Your task to perform on an android device: turn vacation reply on in the gmail app Image 0: 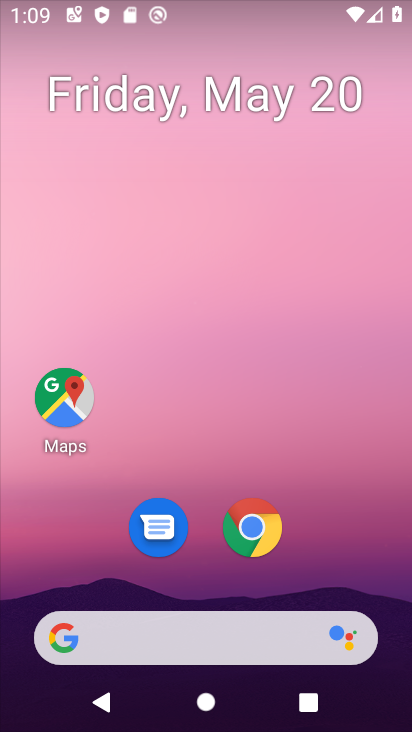
Step 0: press home button
Your task to perform on an android device: turn vacation reply on in the gmail app Image 1: 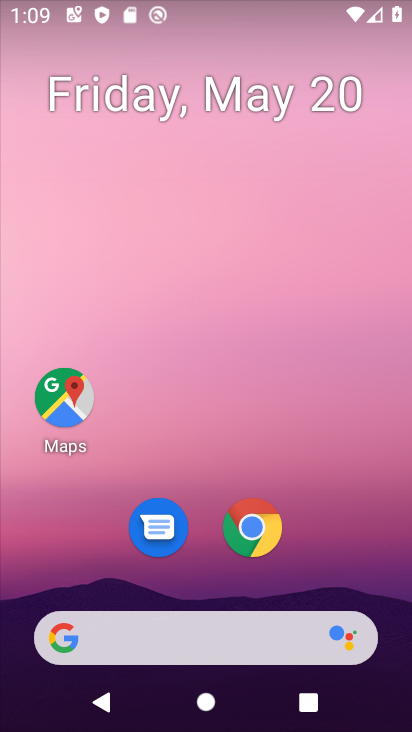
Step 1: drag from (154, 644) to (293, 203)
Your task to perform on an android device: turn vacation reply on in the gmail app Image 2: 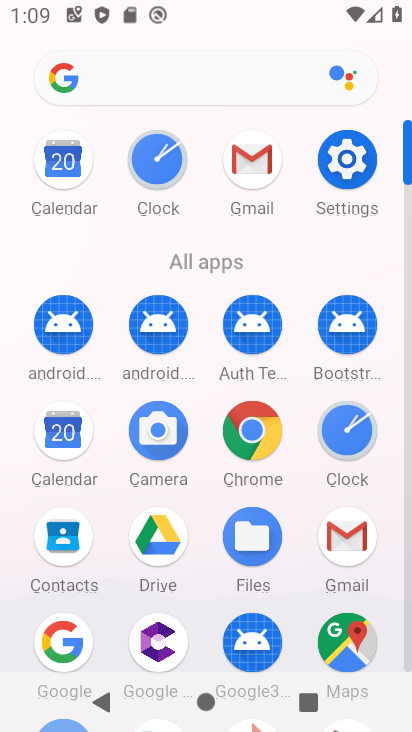
Step 2: click (250, 173)
Your task to perform on an android device: turn vacation reply on in the gmail app Image 3: 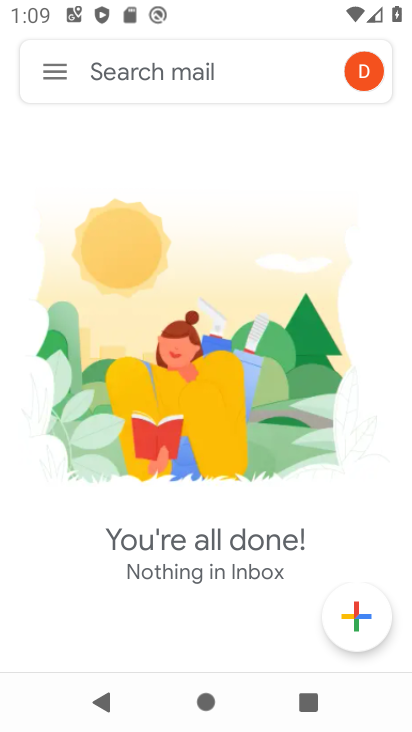
Step 3: click (59, 74)
Your task to perform on an android device: turn vacation reply on in the gmail app Image 4: 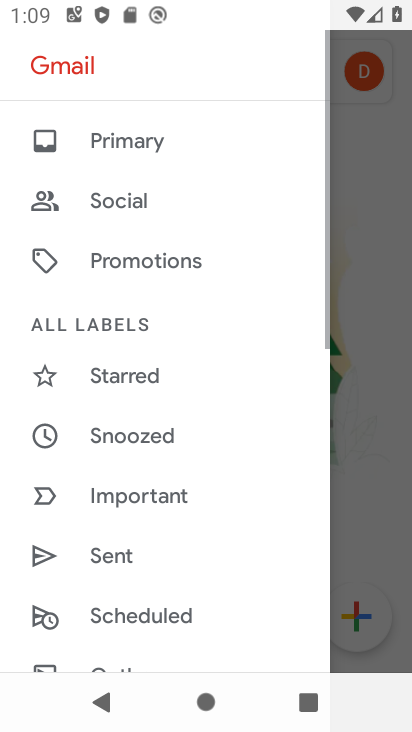
Step 4: drag from (189, 586) to (235, 135)
Your task to perform on an android device: turn vacation reply on in the gmail app Image 5: 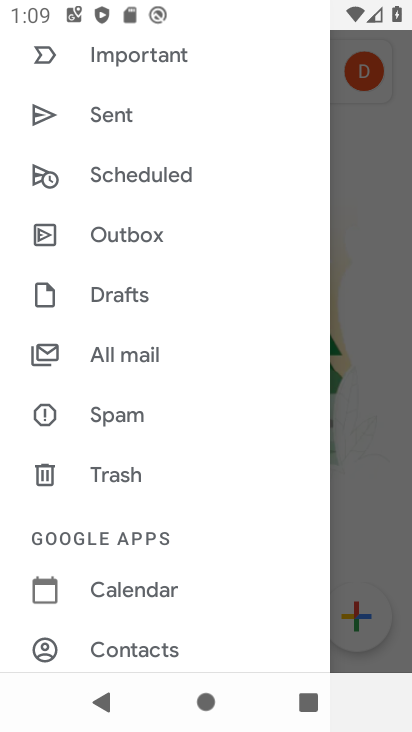
Step 5: drag from (205, 630) to (202, 170)
Your task to perform on an android device: turn vacation reply on in the gmail app Image 6: 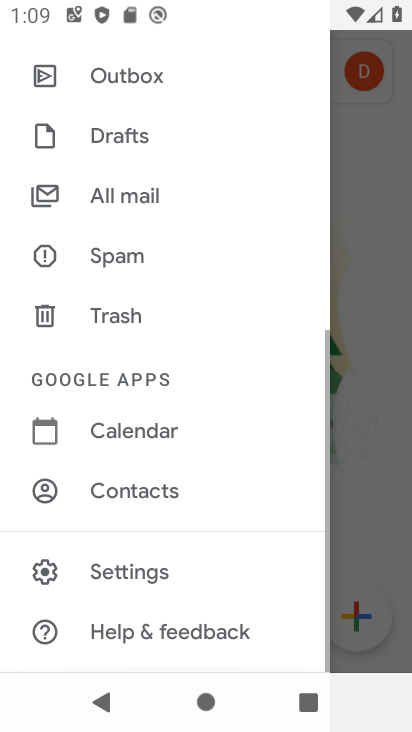
Step 6: click (132, 566)
Your task to perform on an android device: turn vacation reply on in the gmail app Image 7: 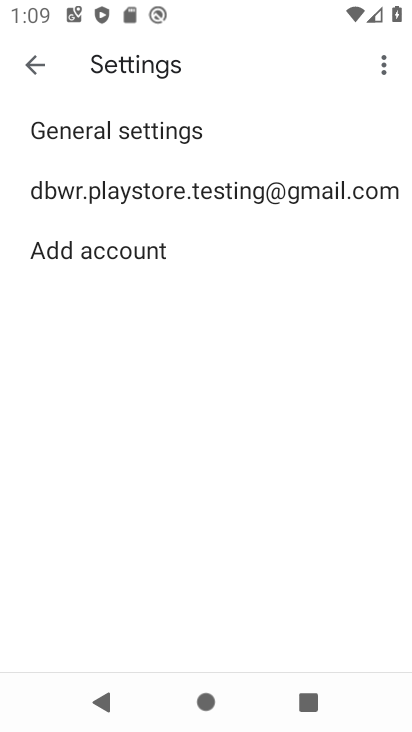
Step 7: click (221, 189)
Your task to perform on an android device: turn vacation reply on in the gmail app Image 8: 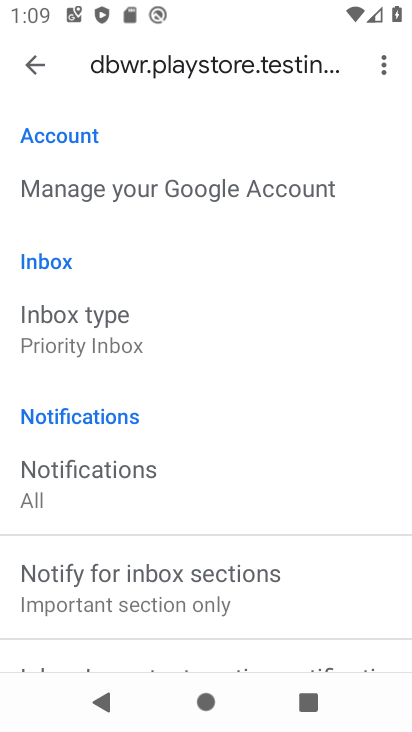
Step 8: drag from (184, 509) to (335, 86)
Your task to perform on an android device: turn vacation reply on in the gmail app Image 9: 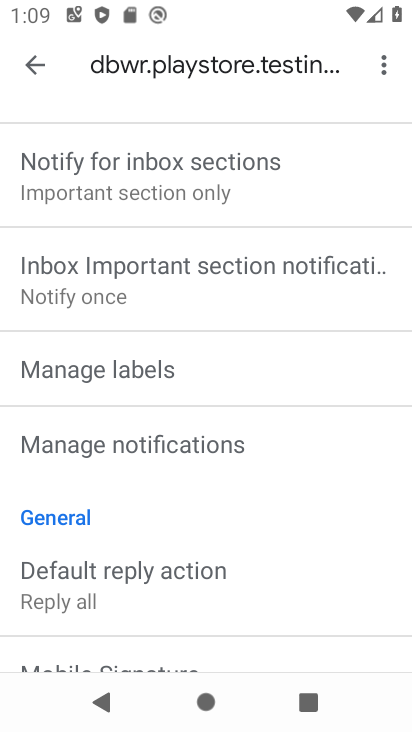
Step 9: drag from (206, 616) to (313, 156)
Your task to perform on an android device: turn vacation reply on in the gmail app Image 10: 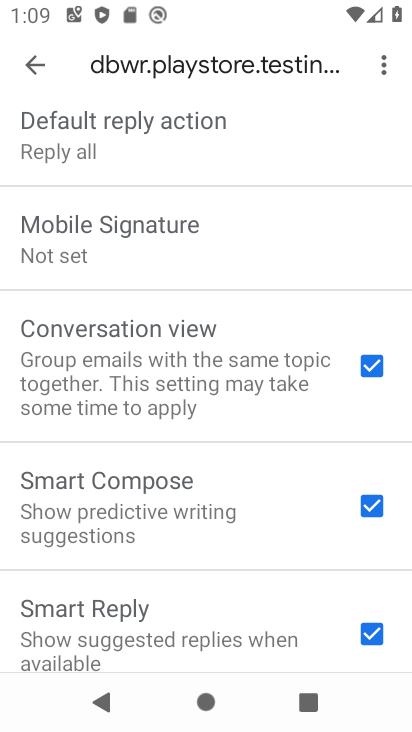
Step 10: drag from (232, 601) to (332, 124)
Your task to perform on an android device: turn vacation reply on in the gmail app Image 11: 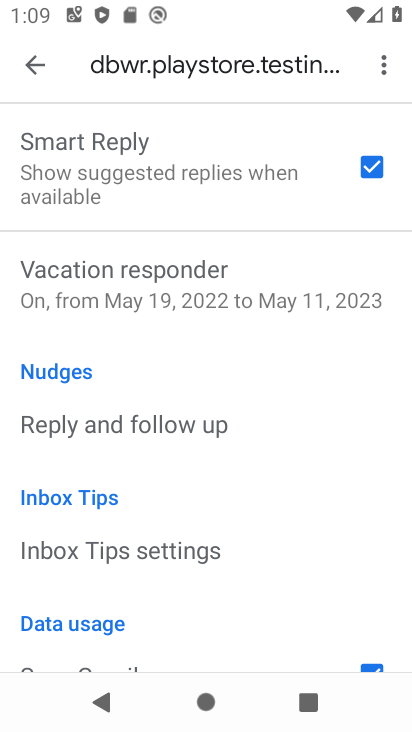
Step 11: click (164, 287)
Your task to perform on an android device: turn vacation reply on in the gmail app Image 12: 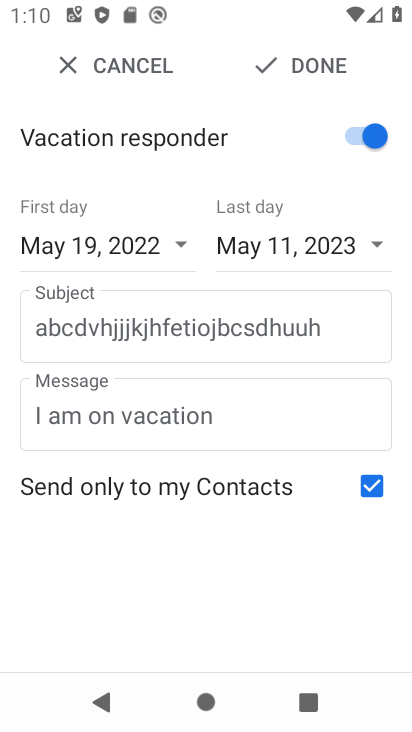
Step 12: task complete